Your task to perform on an android device: Open Maps and search for coffee Image 0: 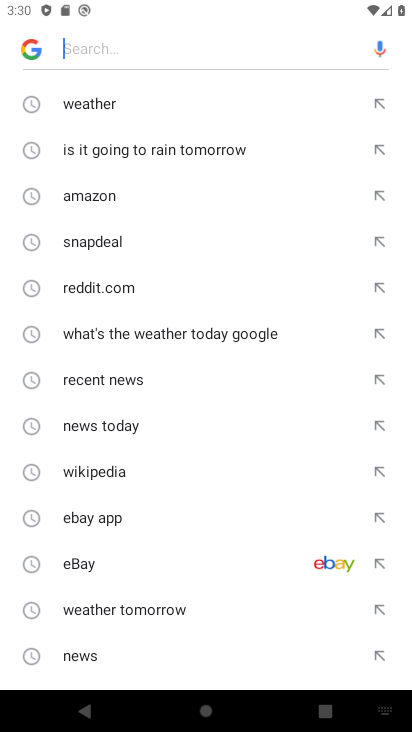
Step 0: press home button
Your task to perform on an android device: Open Maps and search for coffee Image 1: 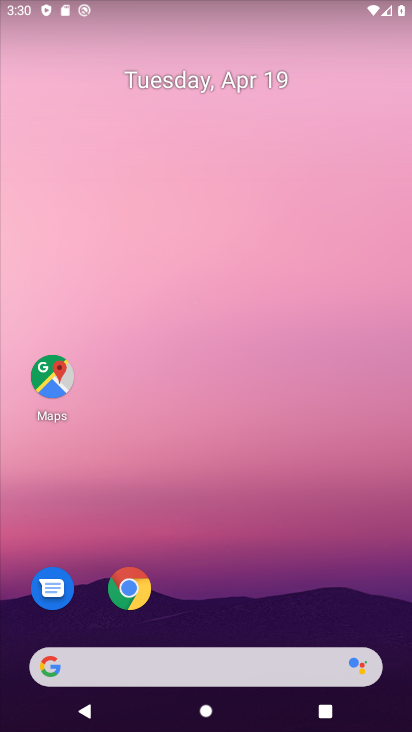
Step 1: click (51, 381)
Your task to perform on an android device: Open Maps and search for coffee Image 2: 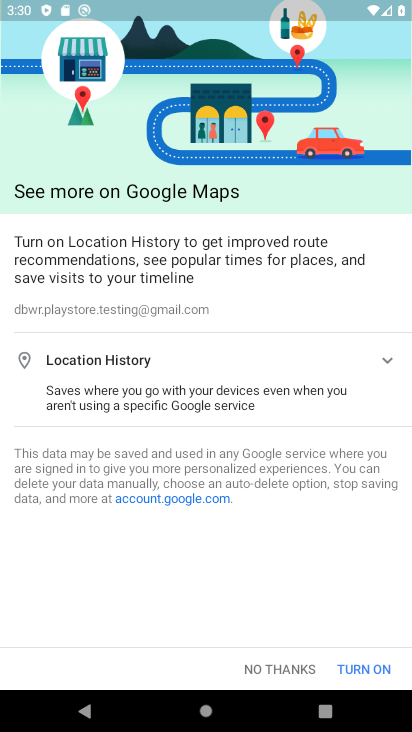
Step 2: click (287, 666)
Your task to perform on an android device: Open Maps and search for coffee Image 3: 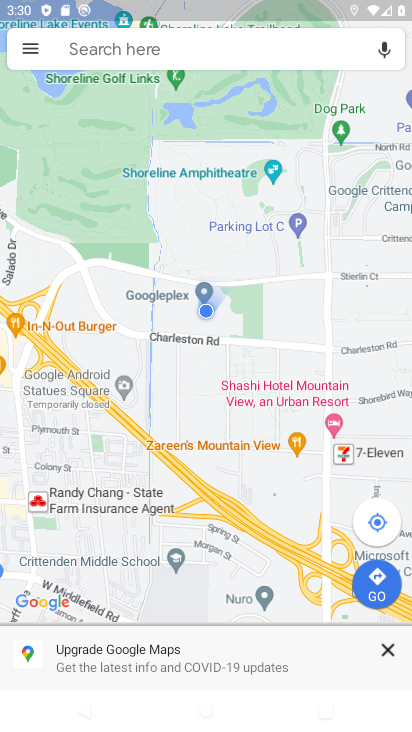
Step 3: click (179, 54)
Your task to perform on an android device: Open Maps and search for coffee Image 4: 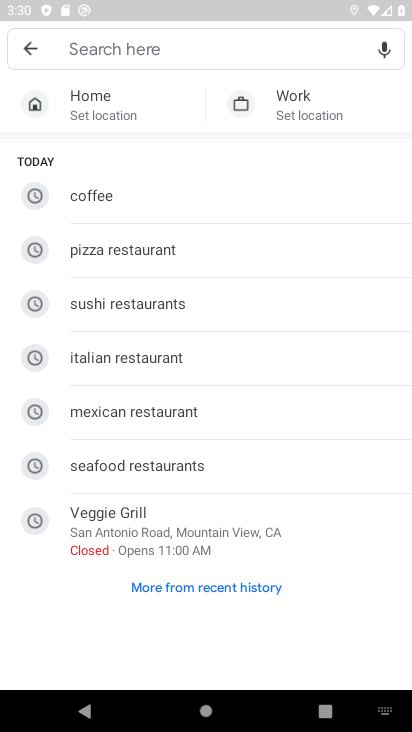
Step 4: click (174, 200)
Your task to perform on an android device: Open Maps and search for coffee Image 5: 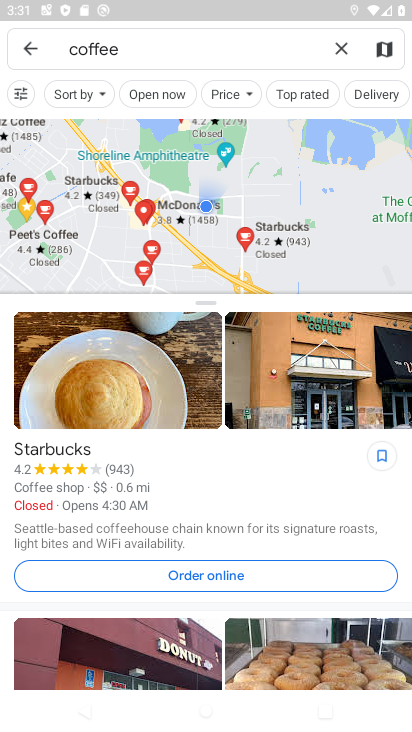
Step 5: task complete